Your task to perform on an android device: set an alarm Image 0: 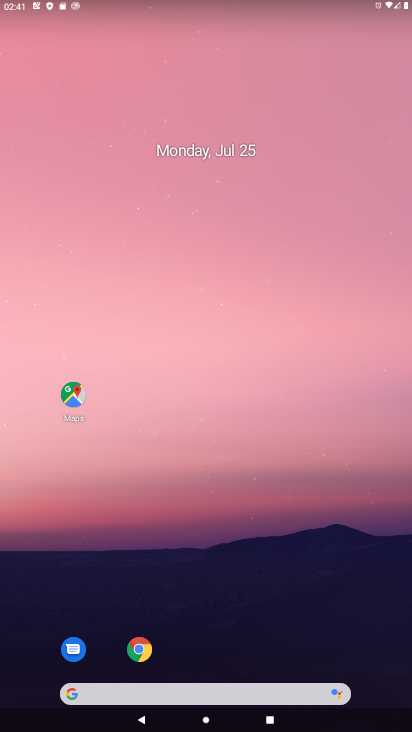
Step 0: drag from (391, 659) to (344, 104)
Your task to perform on an android device: set an alarm Image 1: 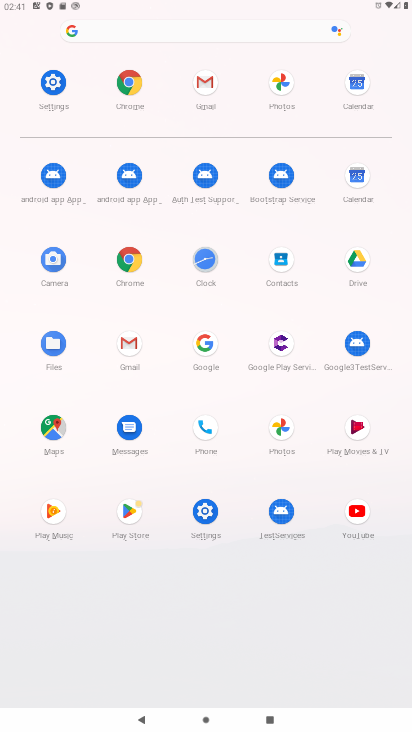
Step 1: click (207, 260)
Your task to perform on an android device: set an alarm Image 2: 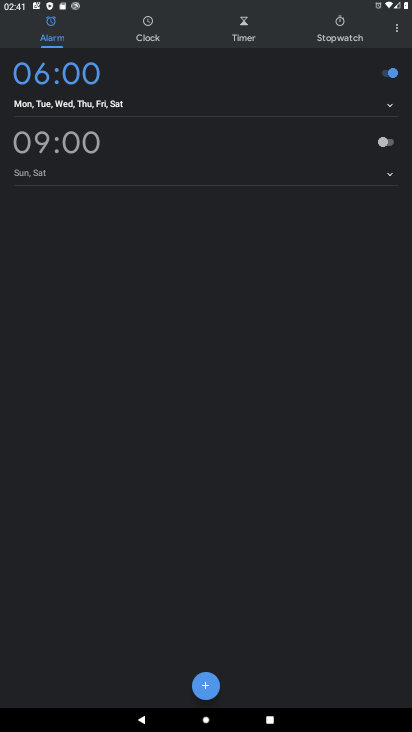
Step 2: click (44, 143)
Your task to perform on an android device: set an alarm Image 3: 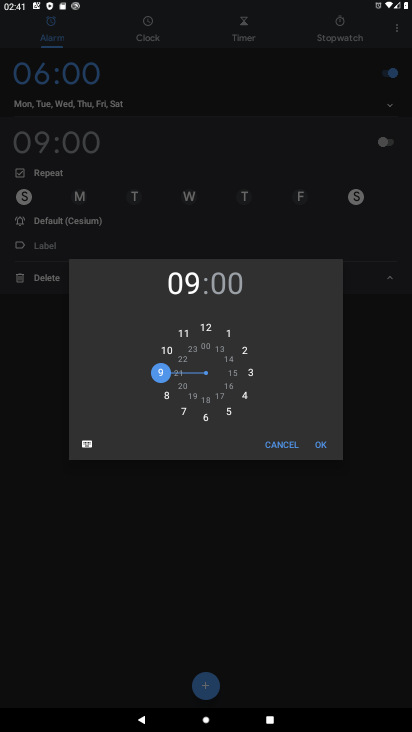
Step 3: click (207, 419)
Your task to perform on an android device: set an alarm Image 4: 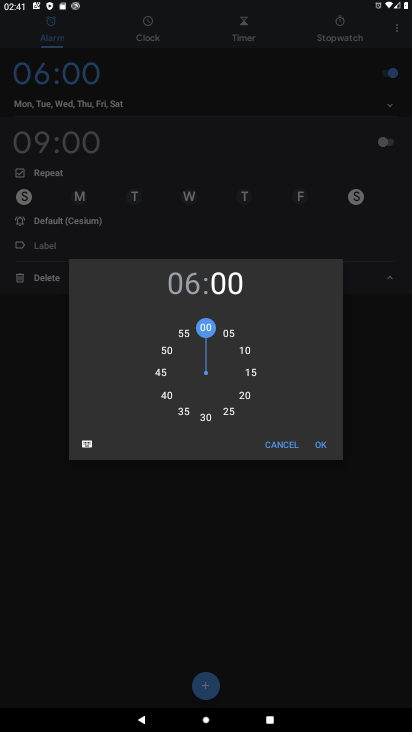
Step 4: click (202, 414)
Your task to perform on an android device: set an alarm Image 5: 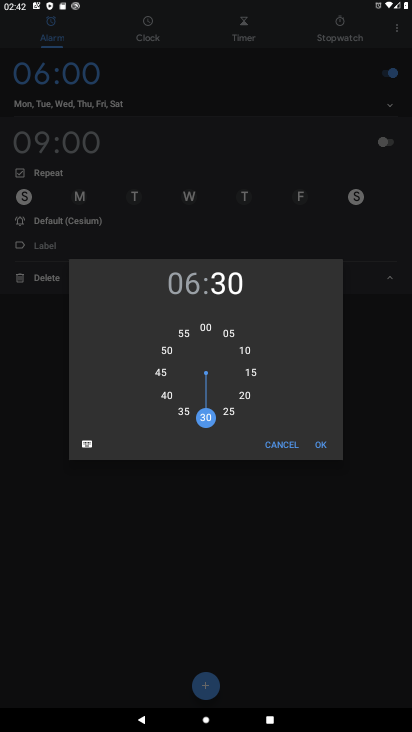
Step 5: click (323, 444)
Your task to perform on an android device: set an alarm Image 6: 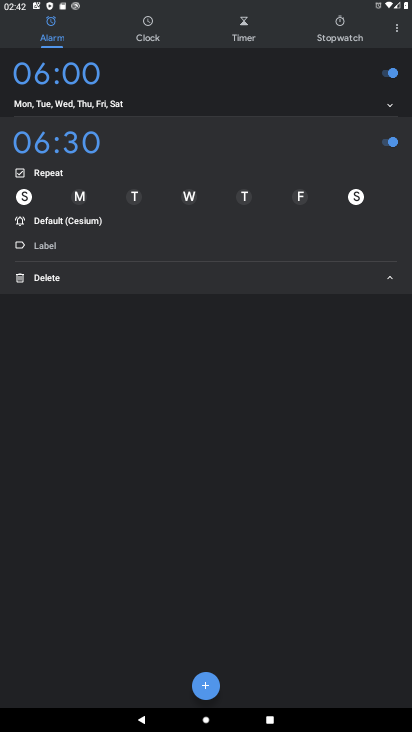
Step 6: click (81, 192)
Your task to perform on an android device: set an alarm Image 7: 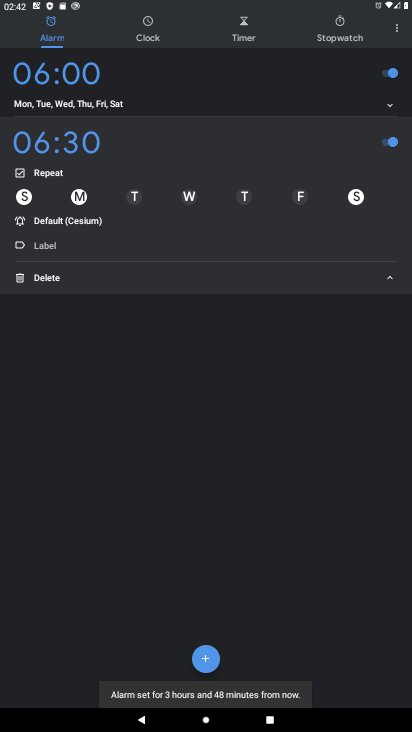
Step 7: click (136, 195)
Your task to perform on an android device: set an alarm Image 8: 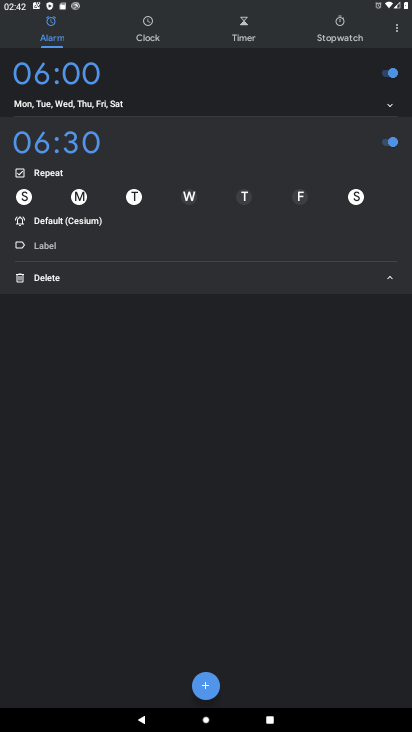
Step 8: click (190, 196)
Your task to perform on an android device: set an alarm Image 9: 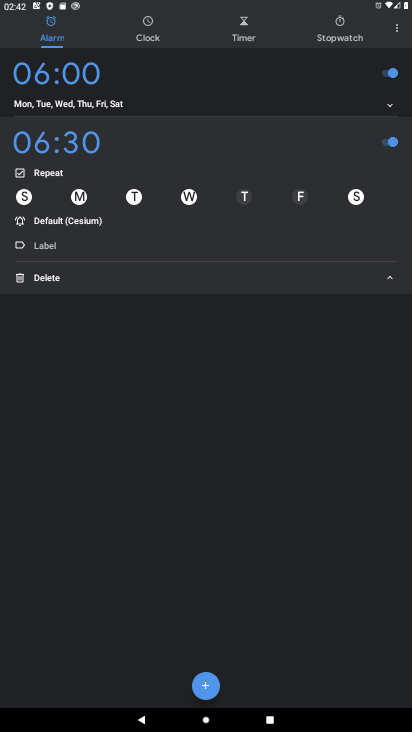
Step 9: click (244, 197)
Your task to perform on an android device: set an alarm Image 10: 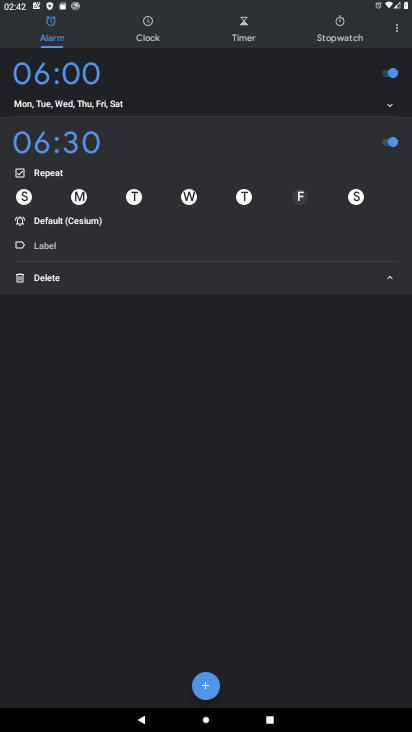
Step 10: click (300, 199)
Your task to perform on an android device: set an alarm Image 11: 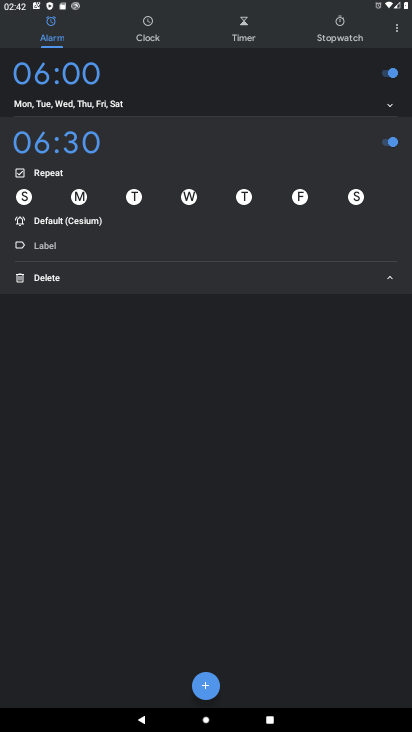
Step 11: click (23, 197)
Your task to perform on an android device: set an alarm Image 12: 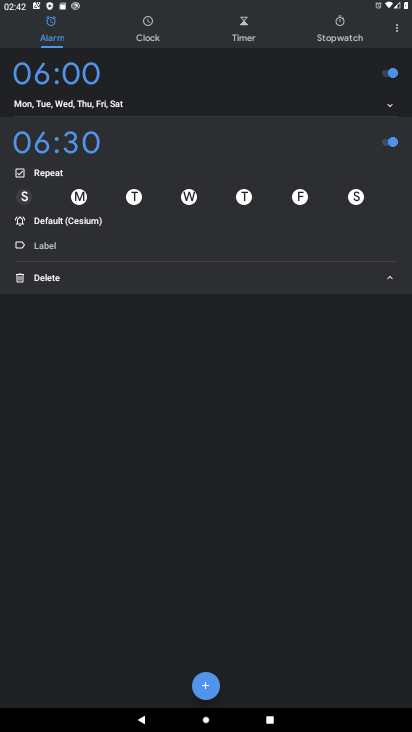
Step 12: click (391, 280)
Your task to perform on an android device: set an alarm Image 13: 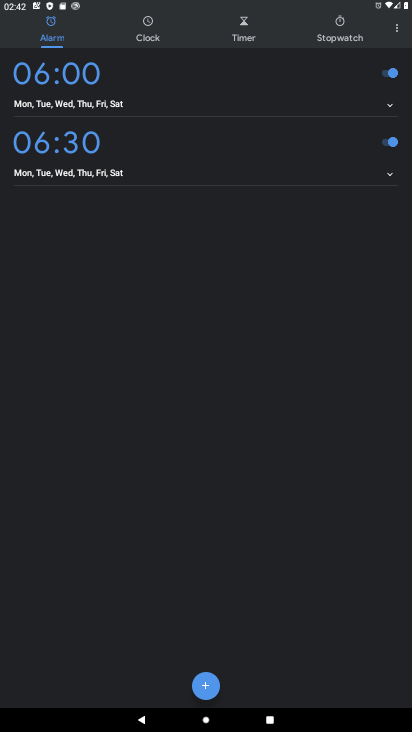
Step 13: task complete